Your task to perform on an android device: Open the phone app and click the voicemail tab. Image 0: 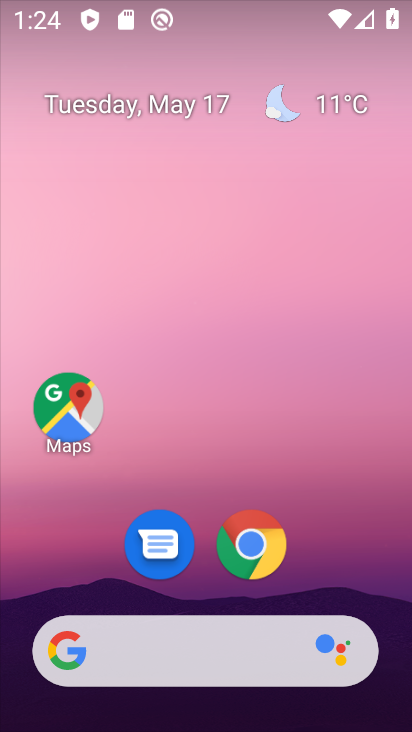
Step 0: press home button
Your task to perform on an android device: Open the phone app and click the voicemail tab. Image 1: 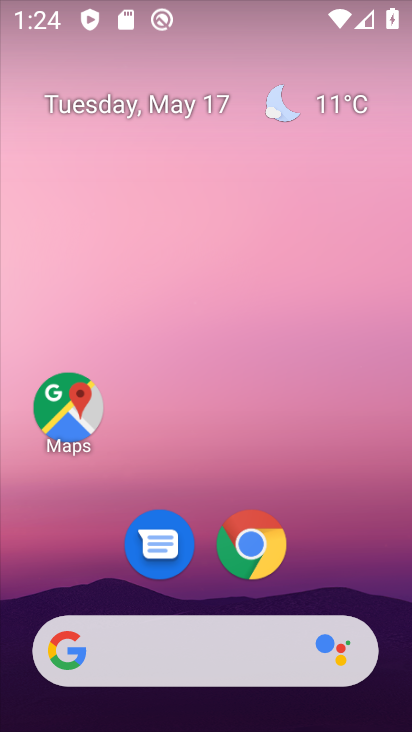
Step 1: drag from (378, 556) to (336, 22)
Your task to perform on an android device: Open the phone app and click the voicemail tab. Image 2: 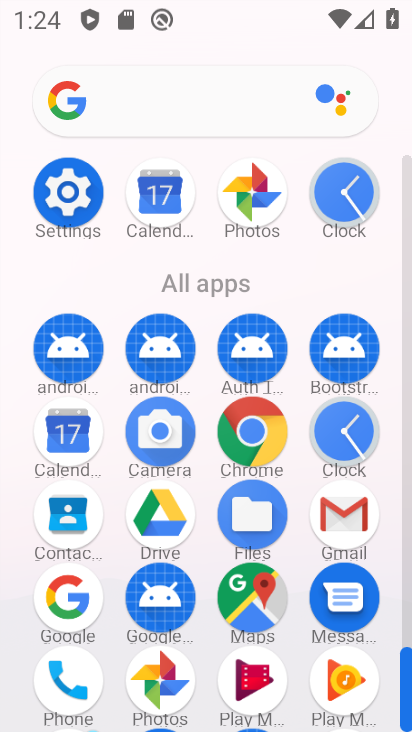
Step 2: click (57, 687)
Your task to perform on an android device: Open the phone app and click the voicemail tab. Image 3: 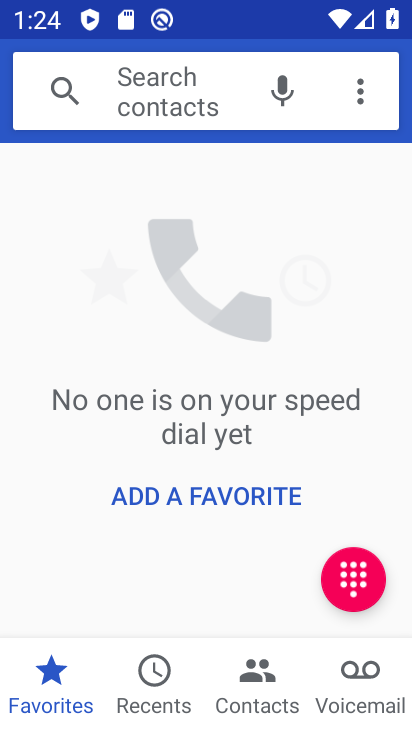
Step 3: click (352, 689)
Your task to perform on an android device: Open the phone app and click the voicemail tab. Image 4: 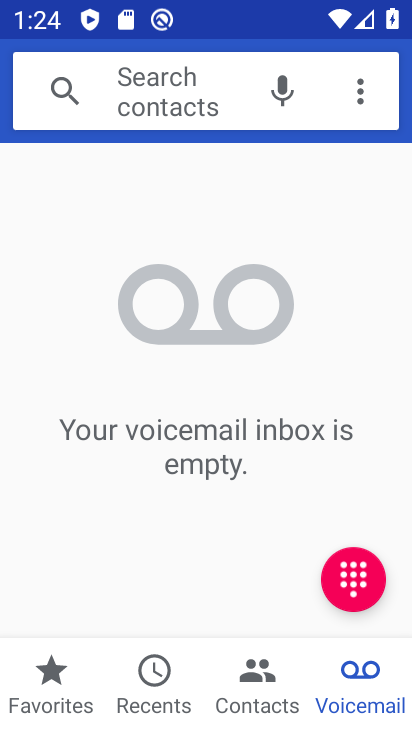
Step 4: task complete